Your task to perform on an android device: Is it going to rain today? Image 0: 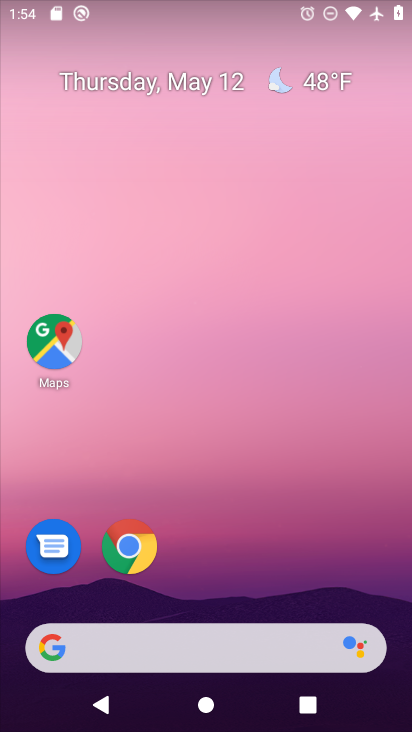
Step 0: click (310, 84)
Your task to perform on an android device: Is it going to rain today? Image 1: 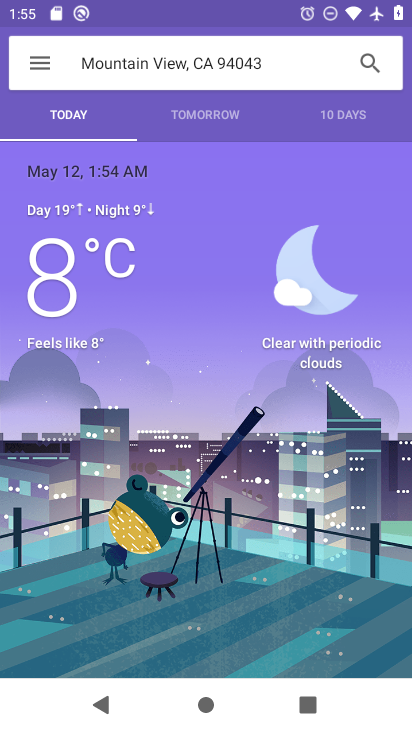
Step 1: task complete